Your task to perform on an android device: Go to internet settings Image 0: 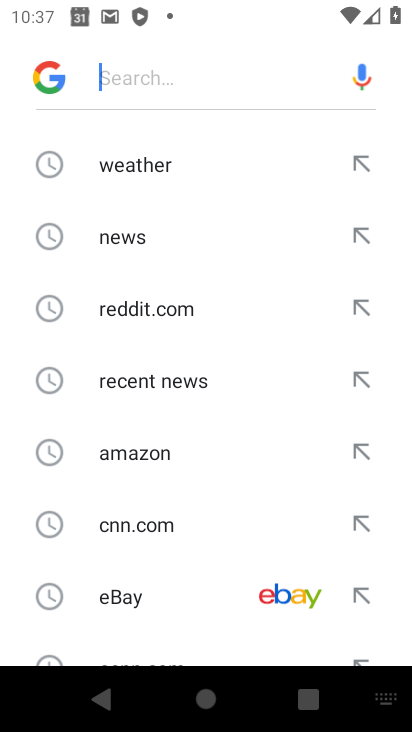
Step 0: press home button
Your task to perform on an android device: Go to internet settings Image 1: 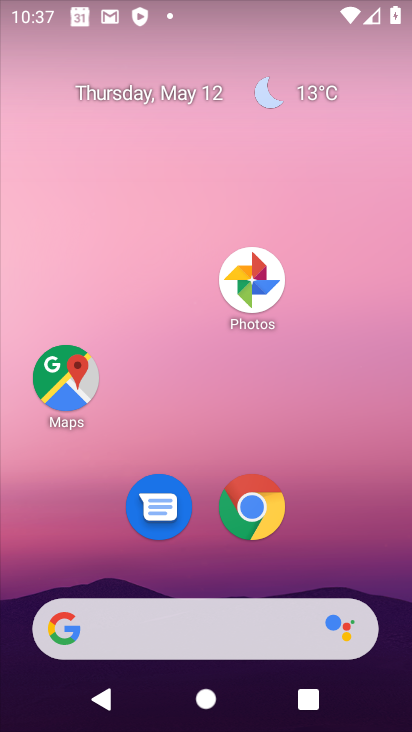
Step 1: drag from (356, 321) to (305, 11)
Your task to perform on an android device: Go to internet settings Image 2: 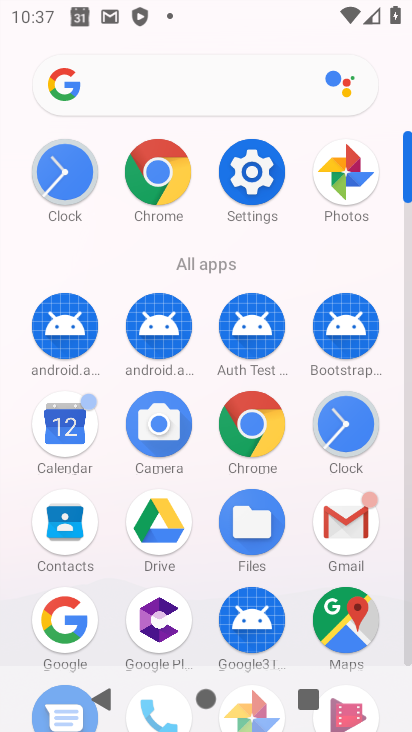
Step 2: click (262, 162)
Your task to perform on an android device: Go to internet settings Image 3: 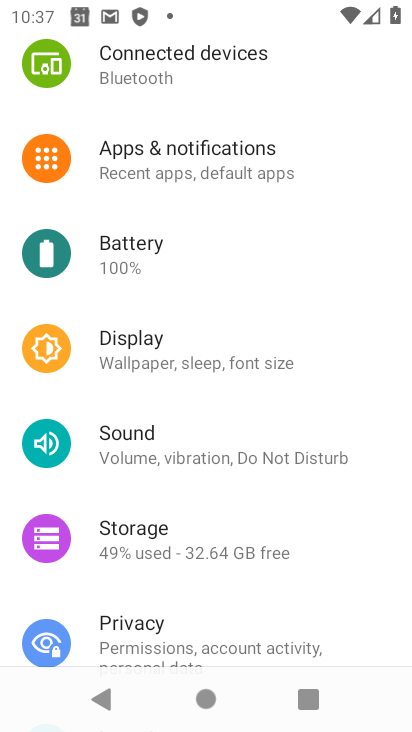
Step 3: drag from (227, 170) to (243, 589)
Your task to perform on an android device: Go to internet settings Image 4: 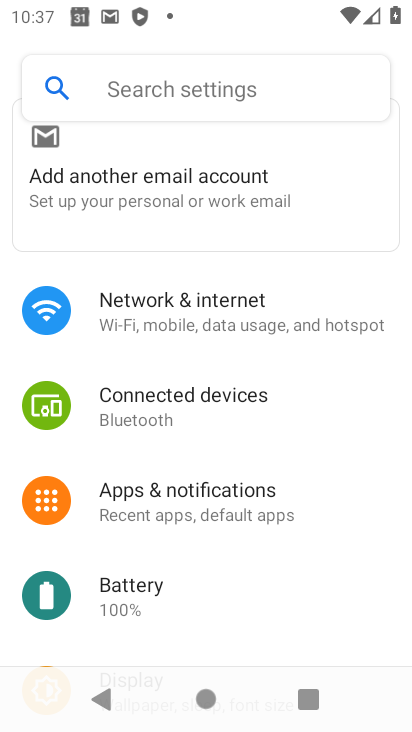
Step 4: drag from (177, 321) to (184, 451)
Your task to perform on an android device: Go to internet settings Image 5: 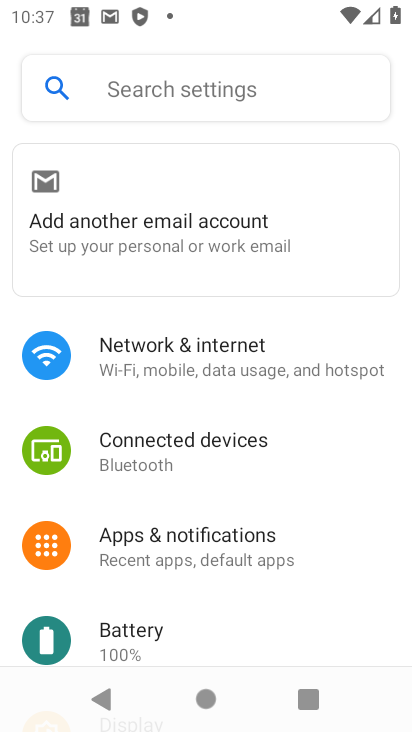
Step 5: click (182, 363)
Your task to perform on an android device: Go to internet settings Image 6: 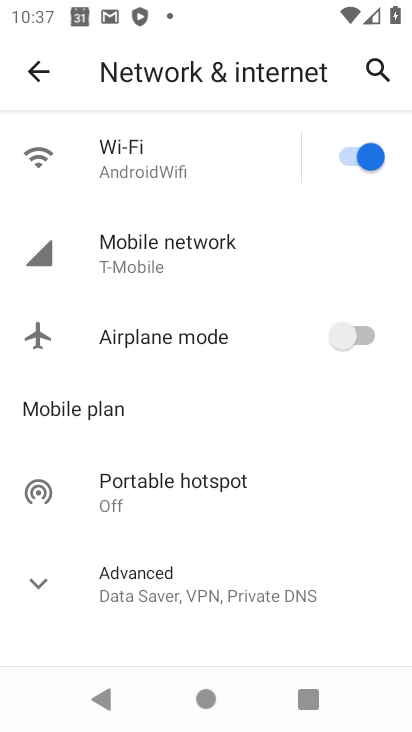
Step 6: task complete